Your task to perform on an android device: Empty the shopping cart on ebay. Image 0: 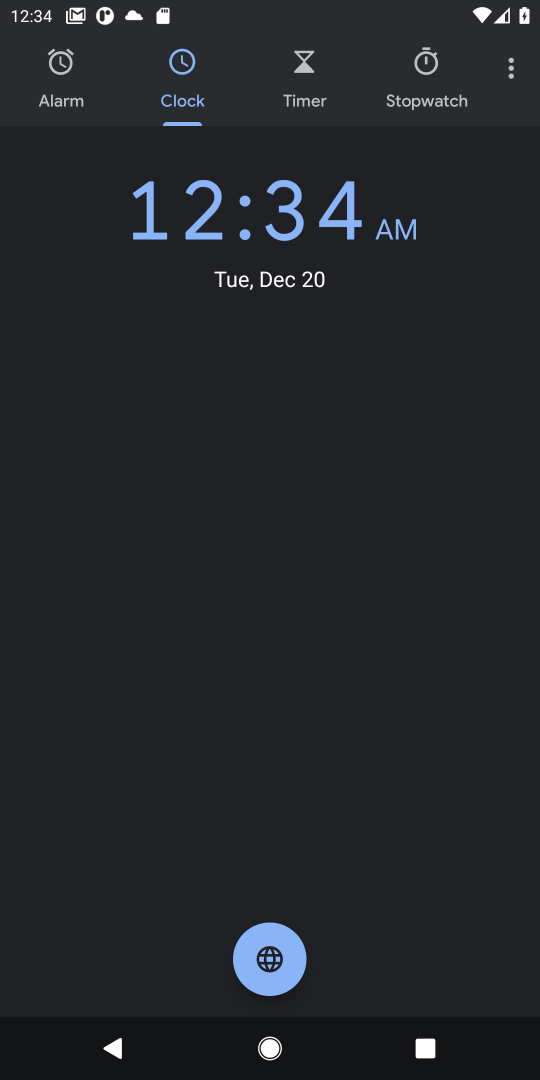
Step 0: press home button
Your task to perform on an android device: Empty the shopping cart on ebay. Image 1: 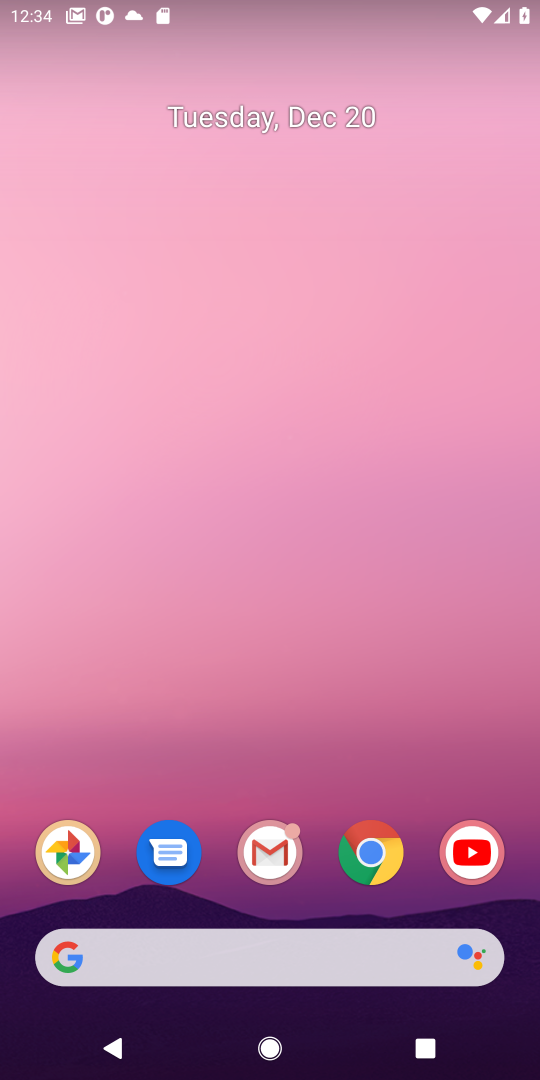
Step 1: click (362, 851)
Your task to perform on an android device: Empty the shopping cart on ebay. Image 2: 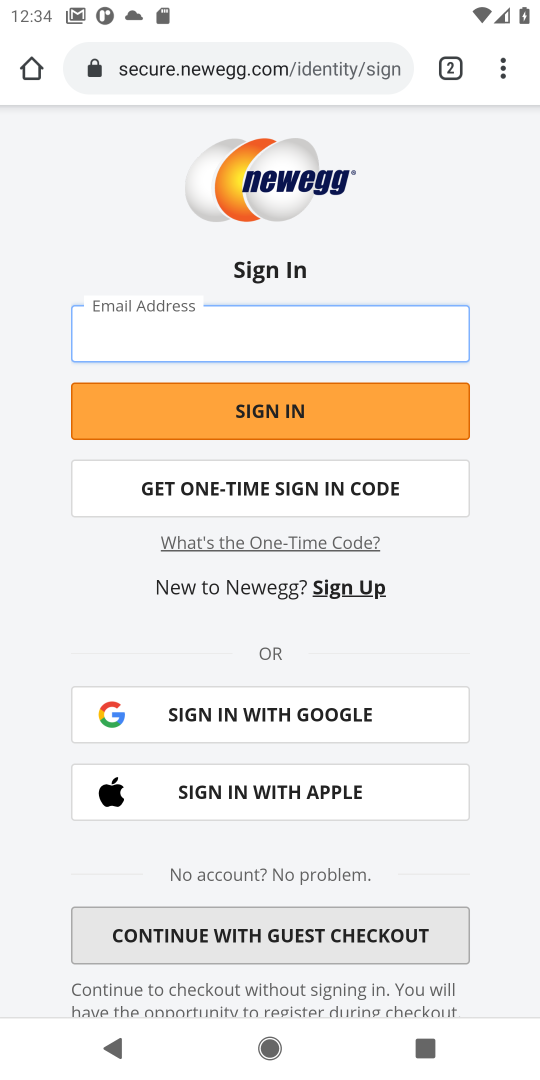
Step 2: click (215, 75)
Your task to perform on an android device: Empty the shopping cart on ebay. Image 3: 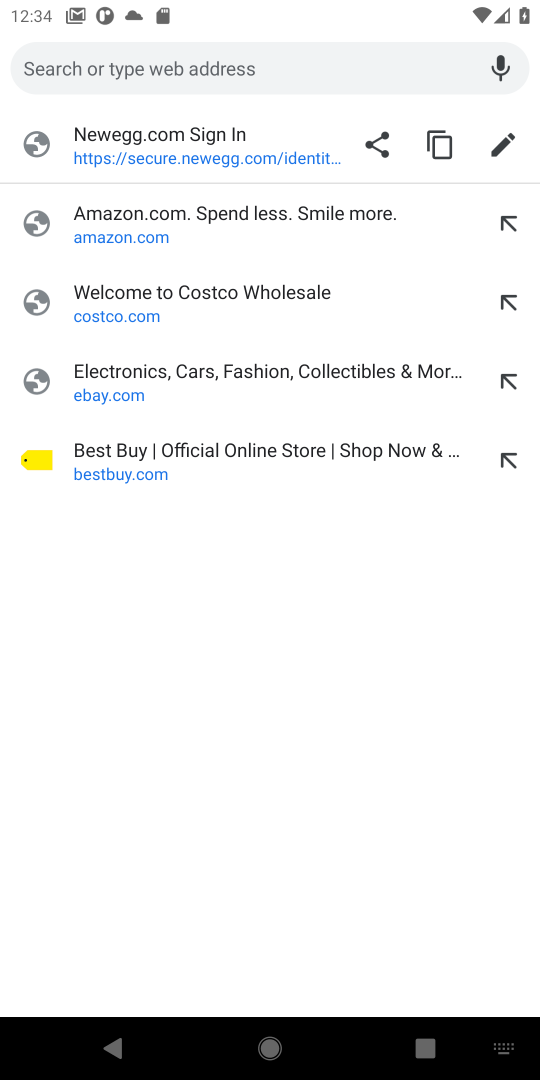
Step 3: click (82, 384)
Your task to perform on an android device: Empty the shopping cart on ebay. Image 4: 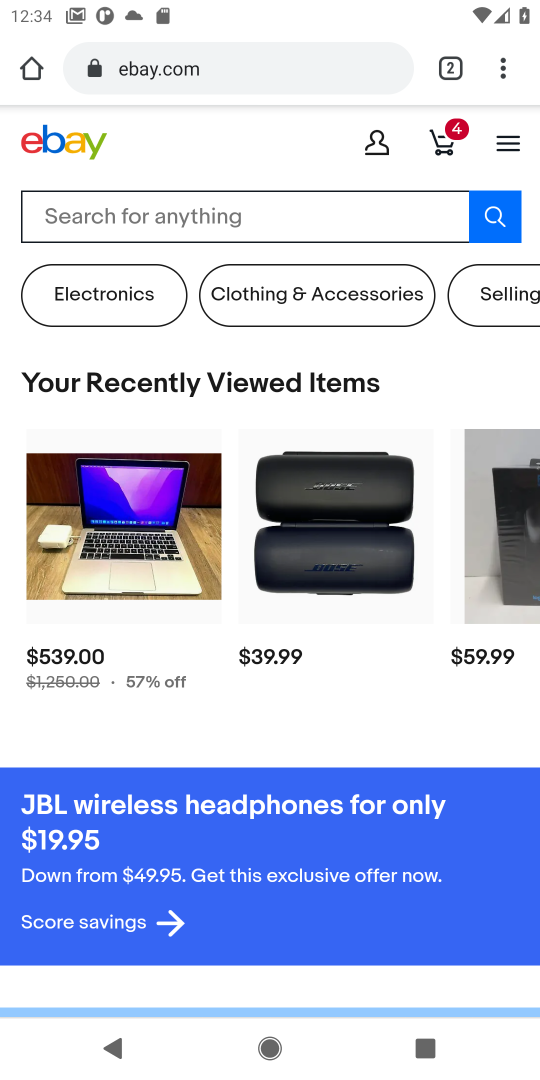
Step 4: click (444, 148)
Your task to perform on an android device: Empty the shopping cart on ebay. Image 5: 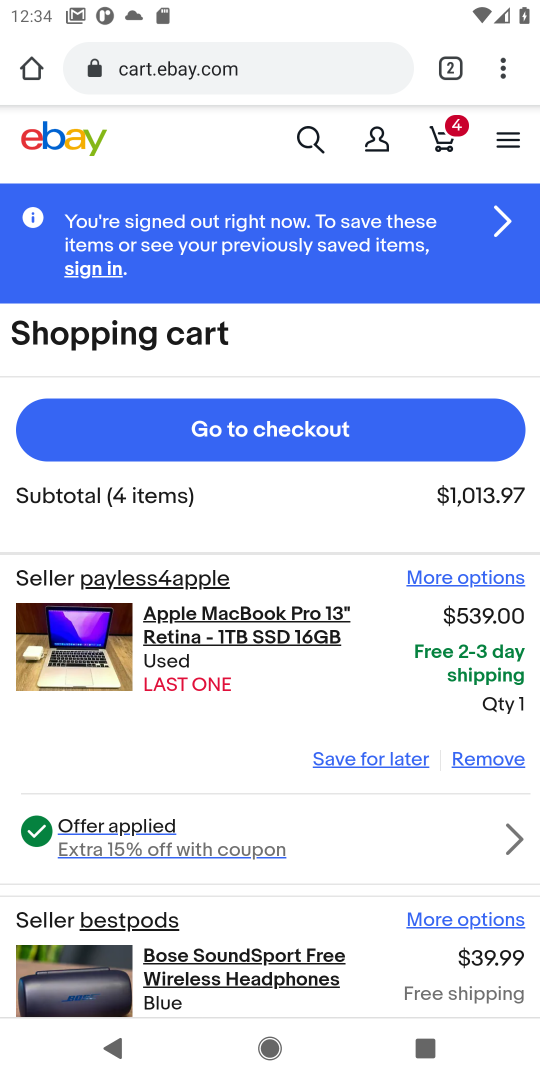
Step 5: click (475, 771)
Your task to perform on an android device: Empty the shopping cart on ebay. Image 6: 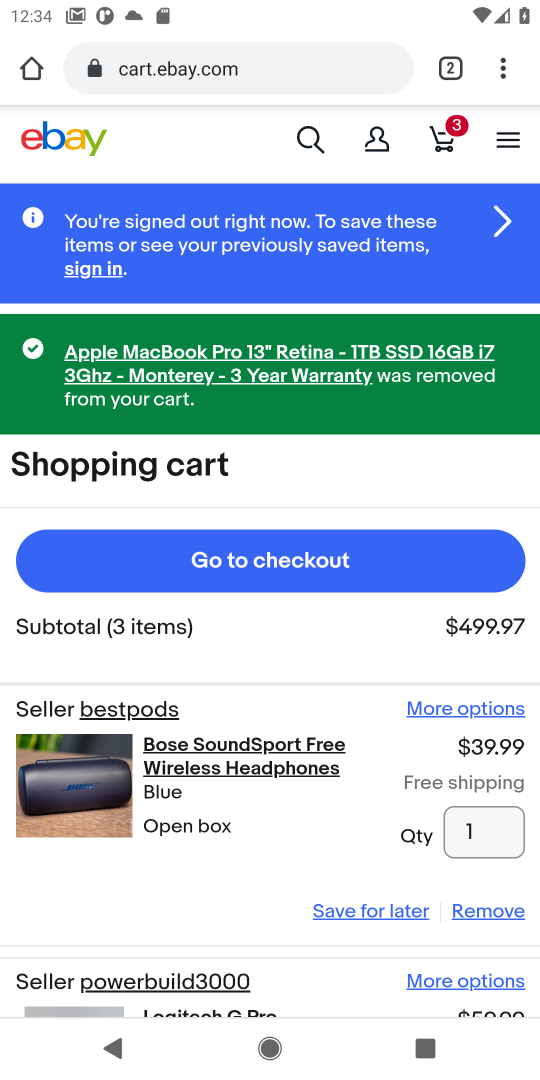
Step 6: click (479, 919)
Your task to perform on an android device: Empty the shopping cart on ebay. Image 7: 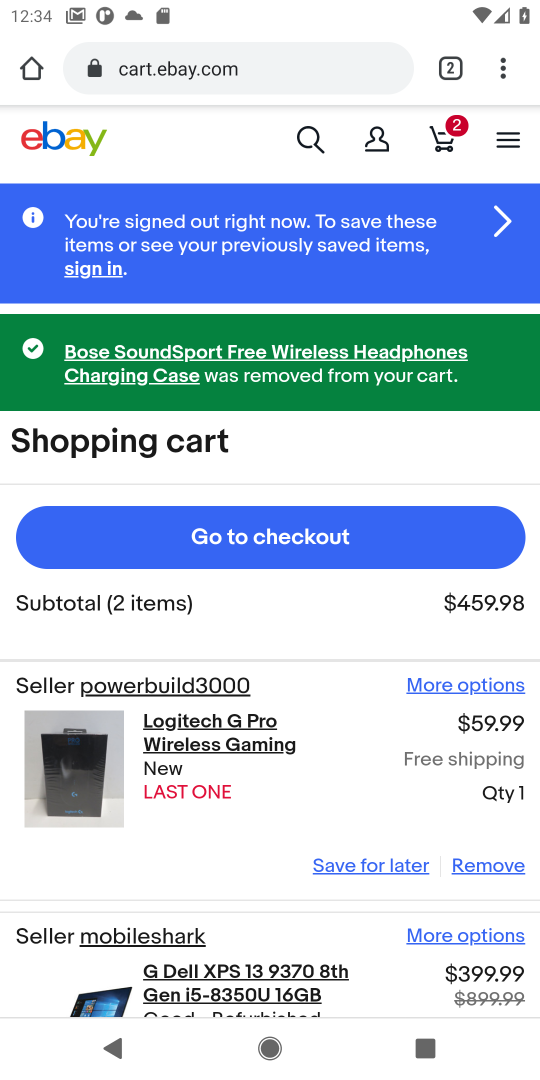
Step 7: click (489, 875)
Your task to perform on an android device: Empty the shopping cart on ebay. Image 8: 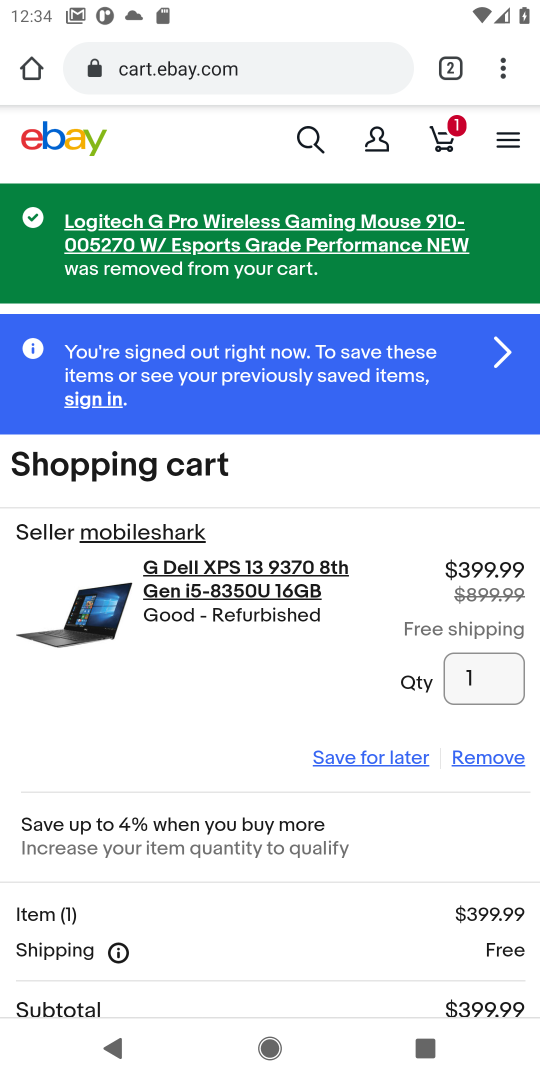
Step 8: click (486, 759)
Your task to perform on an android device: Empty the shopping cart on ebay. Image 9: 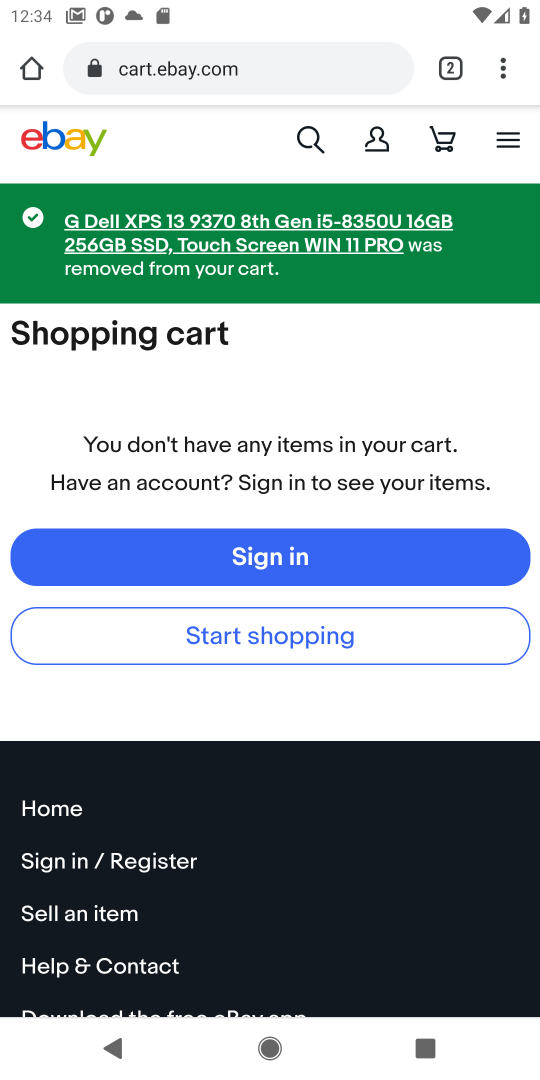
Step 9: task complete